Your task to perform on an android device: Go to internet settings Image 0: 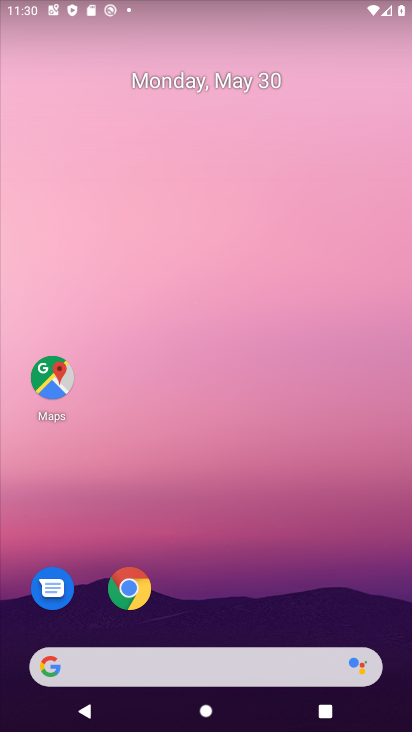
Step 0: drag from (216, 620) to (240, 23)
Your task to perform on an android device: Go to internet settings Image 1: 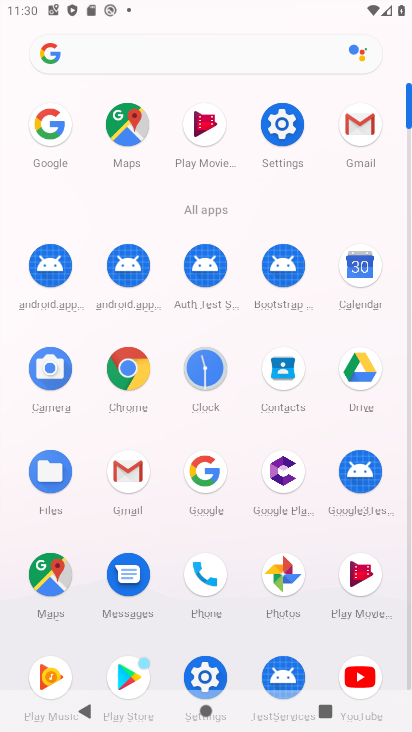
Step 1: click (277, 120)
Your task to perform on an android device: Go to internet settings Image 2: 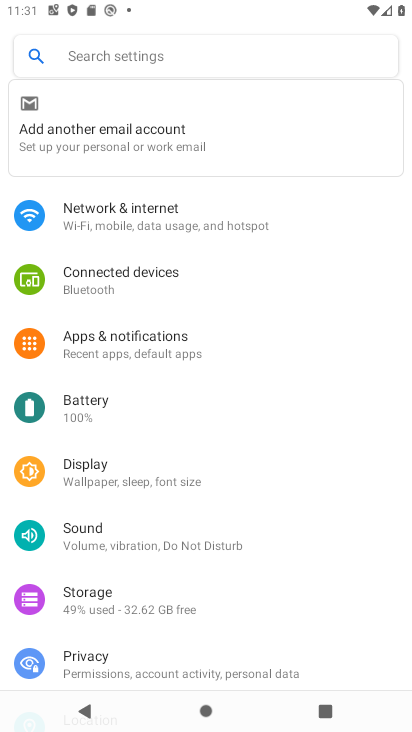
Step 2: click (148, 212)
Your task to perform on an android device: Go to internet settings Image 3: 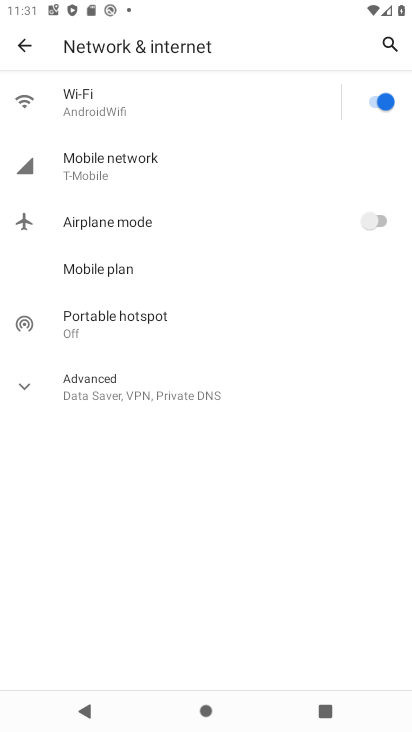
Step 3: click (87, 386)
Your task to perform on an android device: Go to internet settings Image 4: 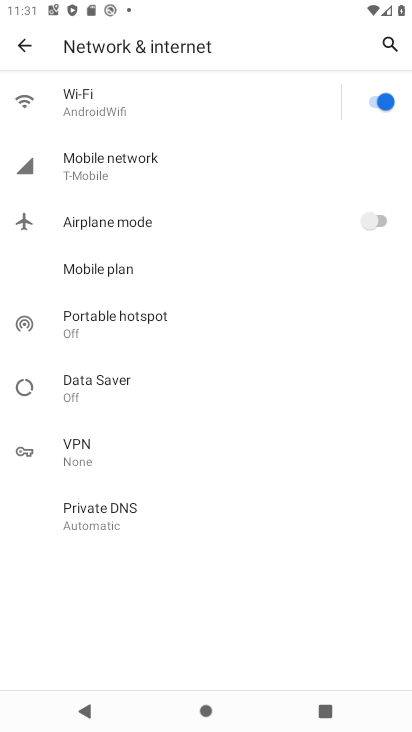
Step 4: task complete